Your task to perform on an android device: Show me recent news Image 0: 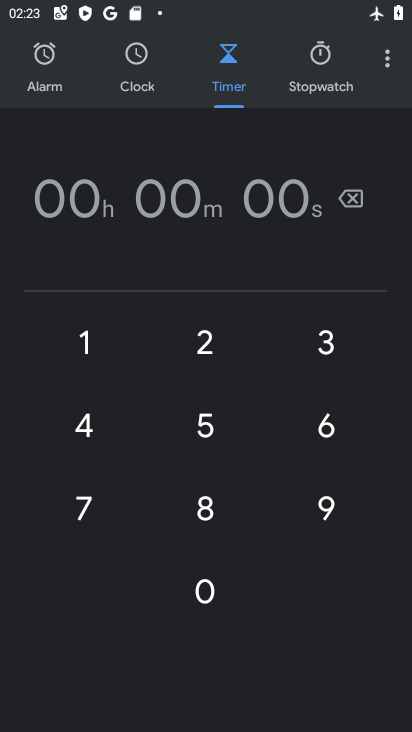
Step 0: drag from (185, 619) to (254, 171)
Your task to perform on an android device: Show me recent news Image 1: 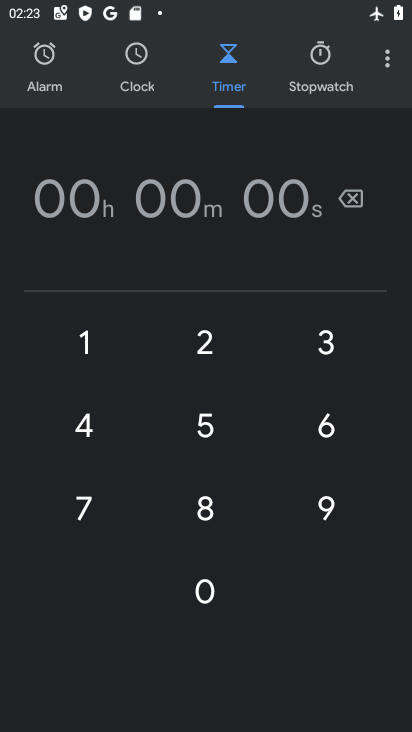
Step 1: press home button
Your task to perform on an android device: Show me recent news Image 2: 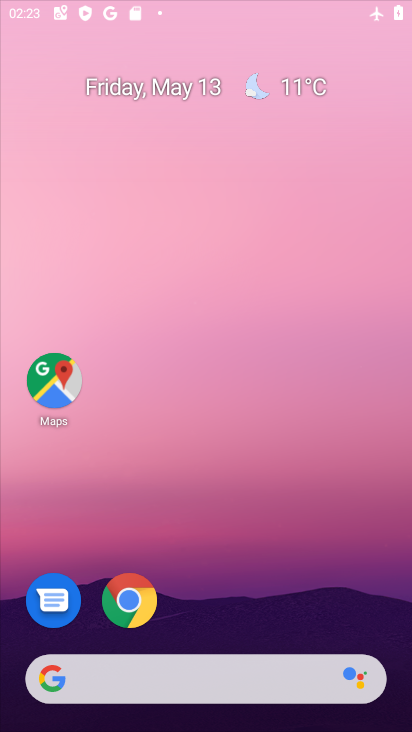
Step 2: drag from (228, 591) to (299, 93)
Your task to perform on an android device: Show me recent news Image 3: 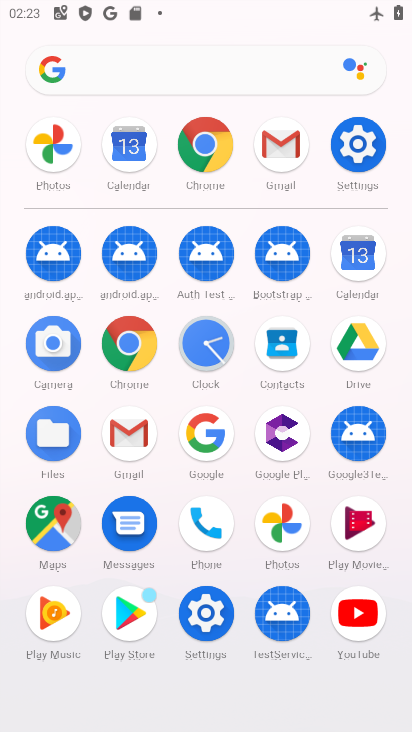
Step 3: click (139, 63)
Your task to perform on an android device: Show me recent news Image 4: 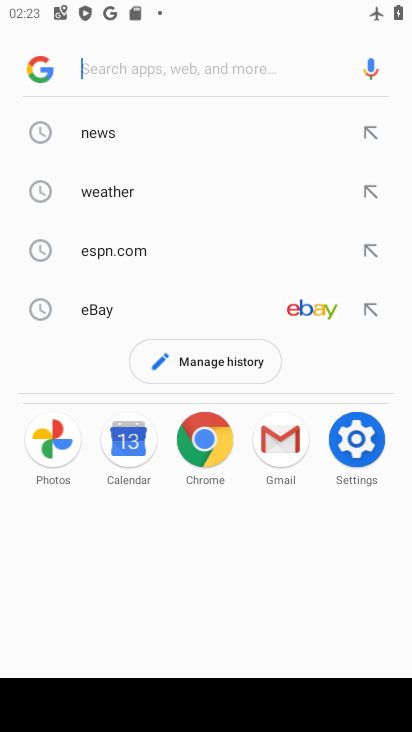
Step 4: type "recent news"
Your task to perform on an android device: Show me recent news Image 5: 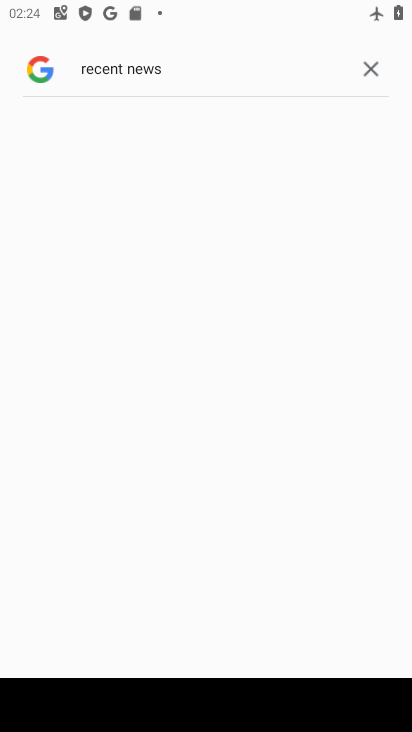
Step 5: click (208, 106)
Your task to perform on an android device: Show me recent news Image 6: 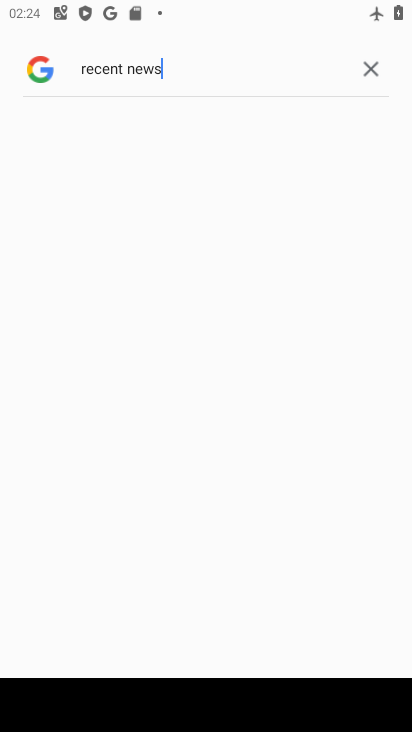
Step 6: click (187, 129)
Your task to perform on an android device: Show me recent news Image 7: 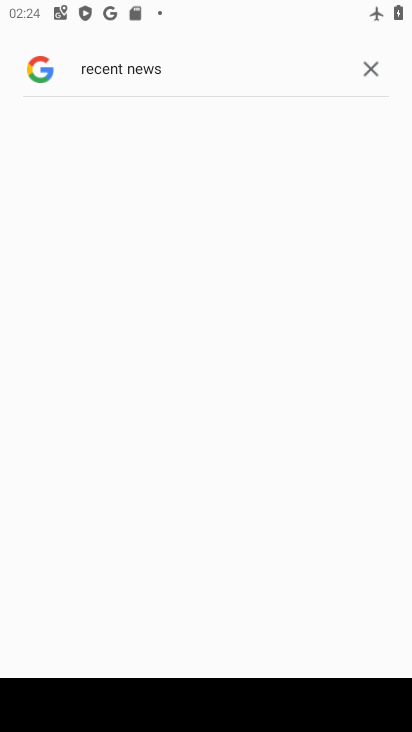
Step 7: task complete